Your task to perform on an android device: turn pop-ups off in chrome Image 0: 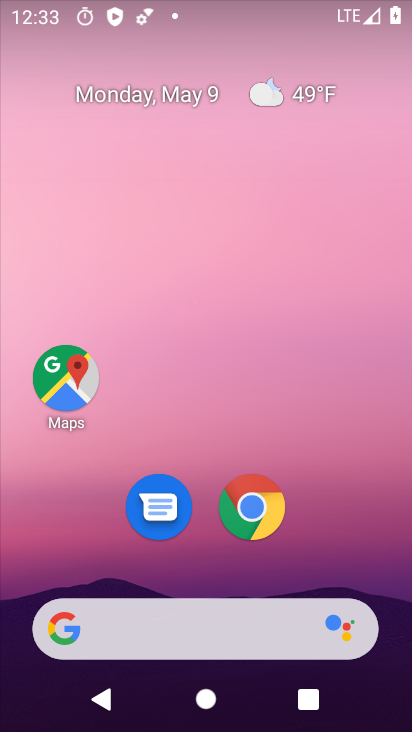
Step 0: click (250, 510)
Your task to perform on an android device: turn pop-ups off in chrome Image 1: 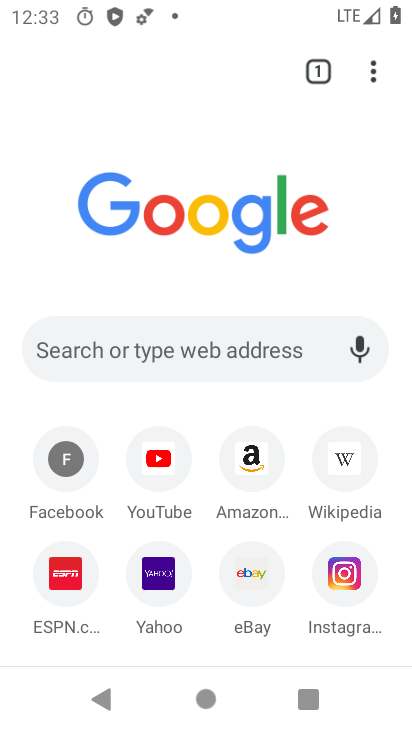
Step 1: click (374, 79)
Your task to perform on an android device: turn pop-ups off in chrome Image 2: 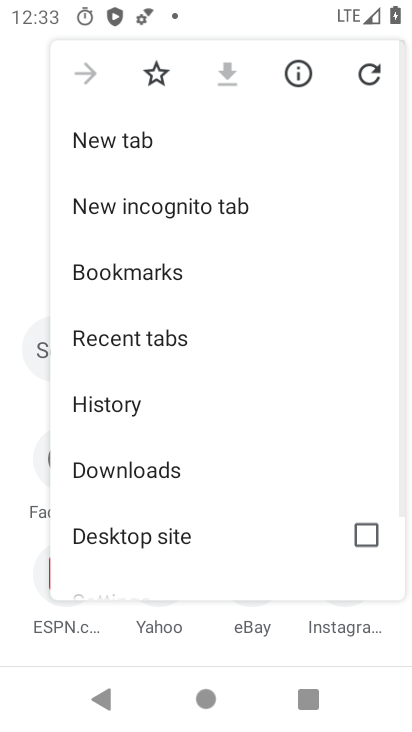
Step 2: drag from (131, 558) to (139, 208)
Your task to perform on an android device: turn pop-ups off in chrome Image 3: 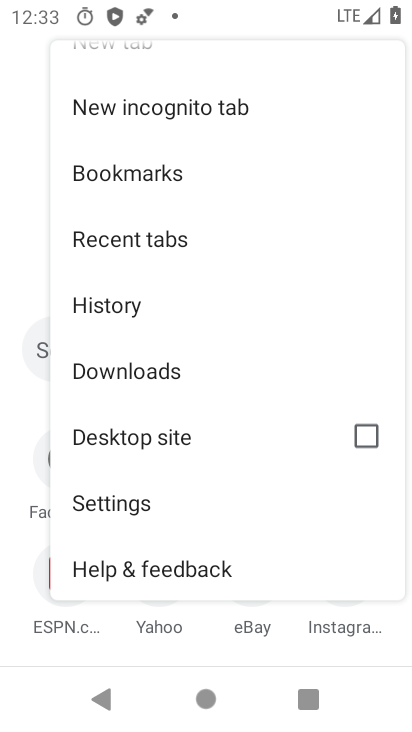
Step 3: click (115, 503)
Your task to perform on an android device: turn pop-ups off in chrome Image 4: 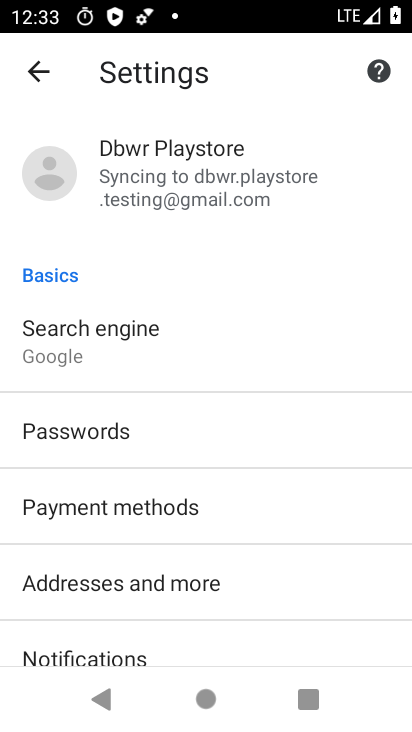
Step 4: drag from (184, 646) to (169, 310)
Your task to perform on an android device: turn pop-ups off in chrome Image 5: 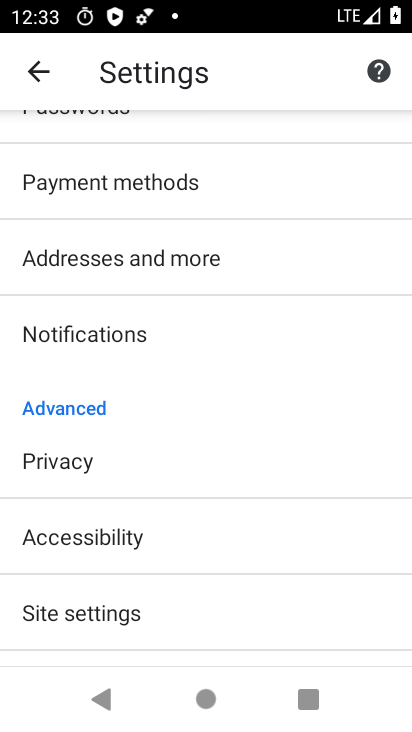
Step 5: drag from (176, 629) to (177, 384)
Your task to perform on an android device: turn pop-ups off in chrome Image 6: 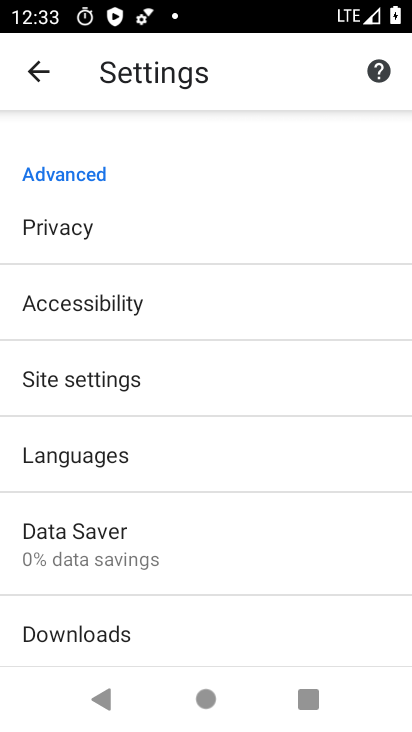
Step 6: click (76, 376)
Your task to perform on an android device: turn pop-ups off in chrome Image 7: 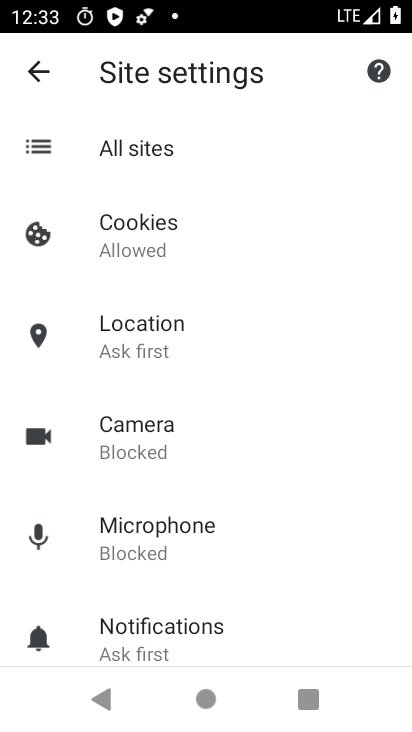
Step 7: drag from (170, 645) to (159, 356)
Your task to perform on an android device: turn pop-ups off in chrome Image 8: 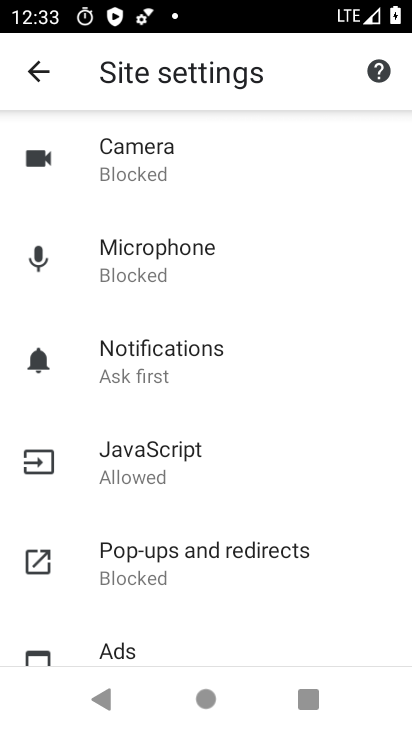
Step 8: click (167, 551)
Your task to perform on an android device: turn pop-ups off in chrome Image 9: 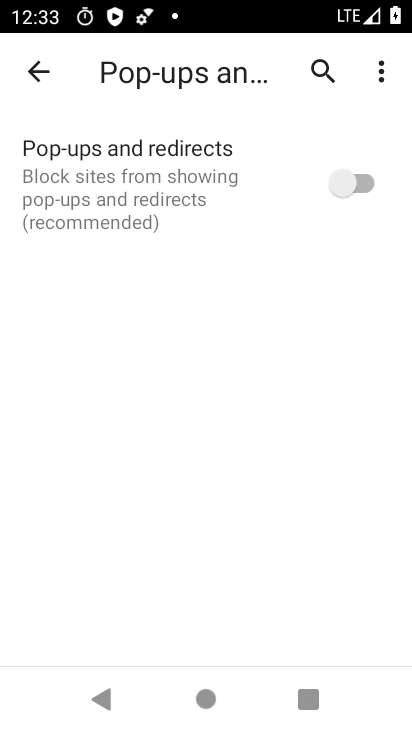
Step 9: task complete